Your task to perform on an android device: Open the calendar and show me this week's events? Image 0: 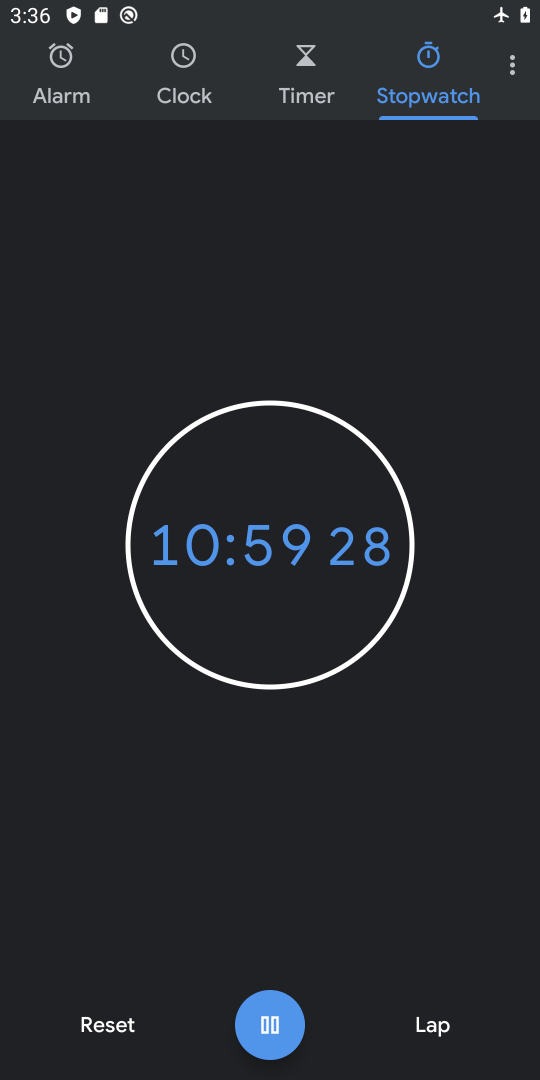
Step 0: press home button
Your task to perform on an android device: Open the calendar and show me this week's events? Image 1: 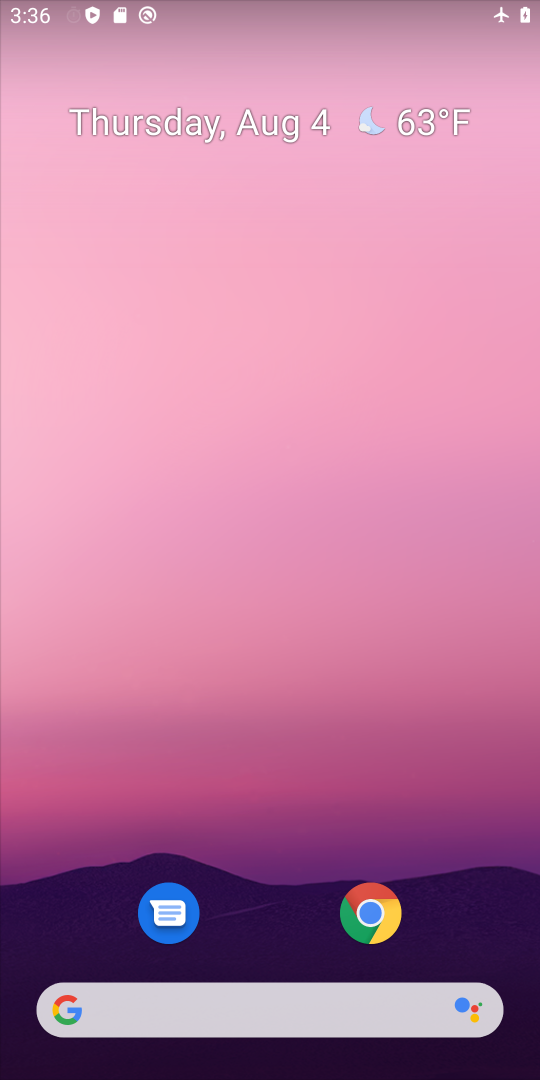
Step 1: drag from (265, 932) to (334, 42)
Your task to perform on an android device: Open the calendar and show me this week's events? Image 2: 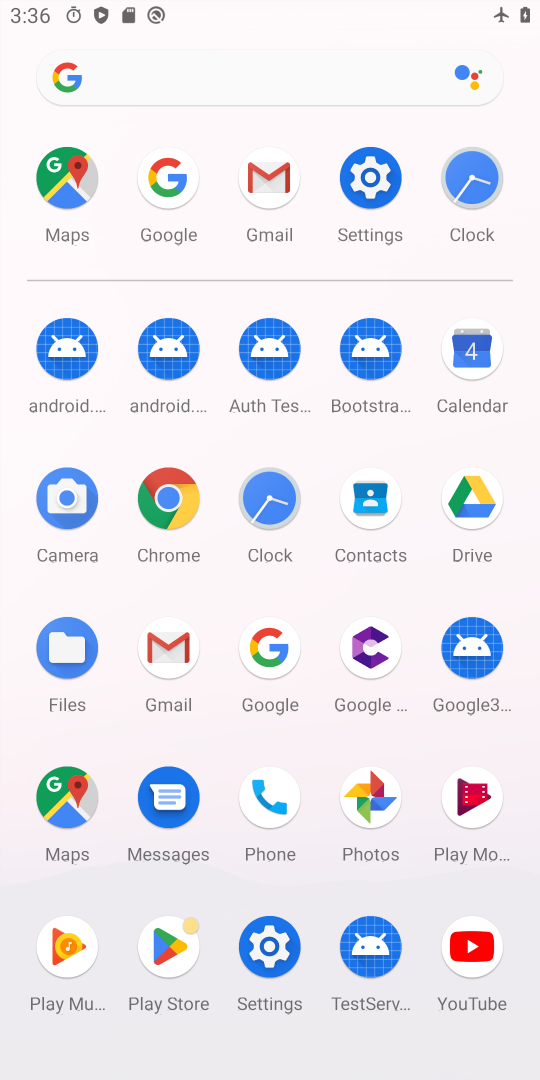
Step 2: click (492, 364)
Your task to perform on an android device: Open the calendar and show me this week's events? Image 3: 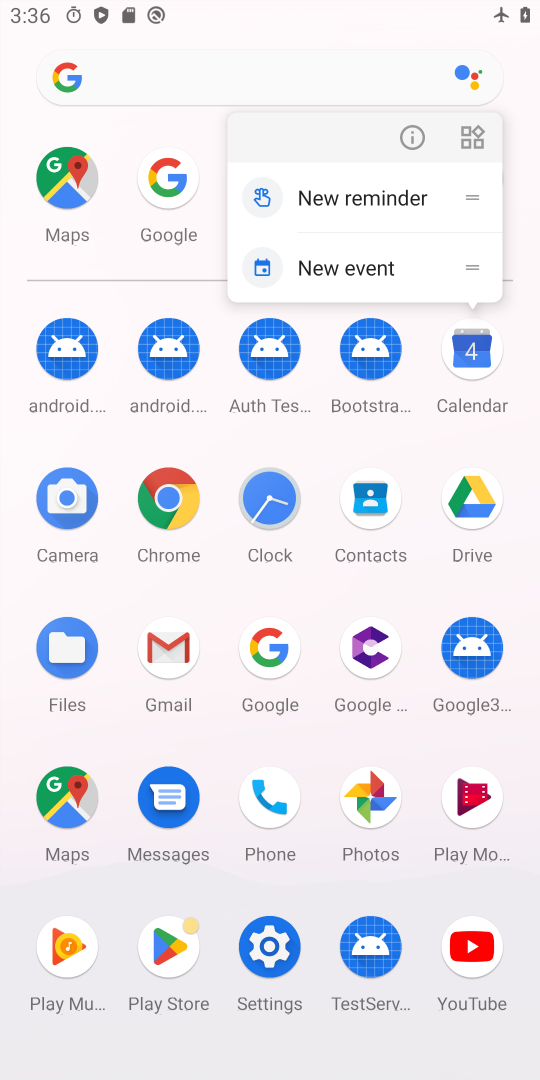
Step 3: click (476, 347)
Your task to perform on an android device: Open the calendar and show me this week's events? Image 4: 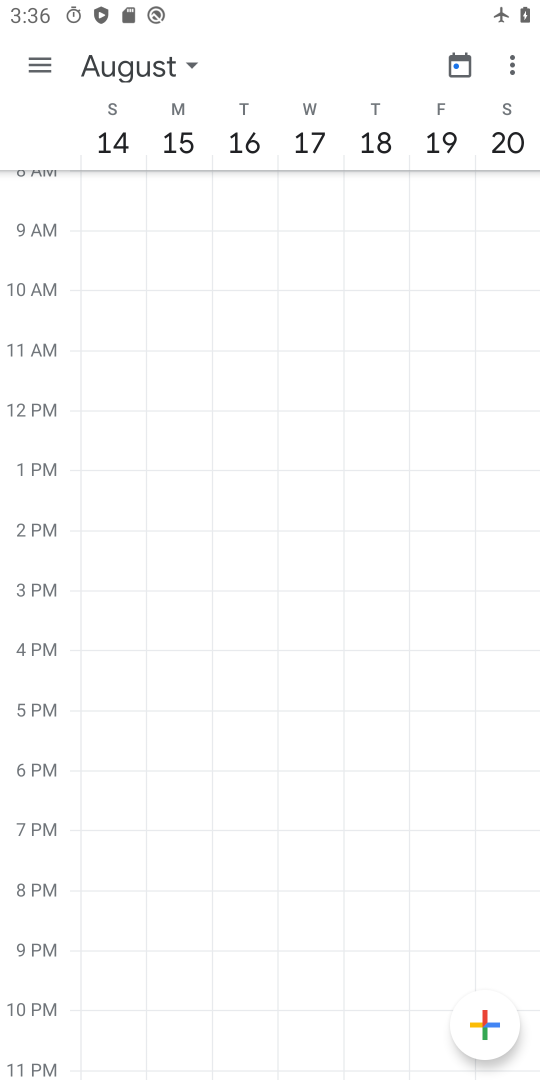
Step 4: click (190, 63)
Your task to perform on an android device: Open the calendar and show me this week's events? Image 5: 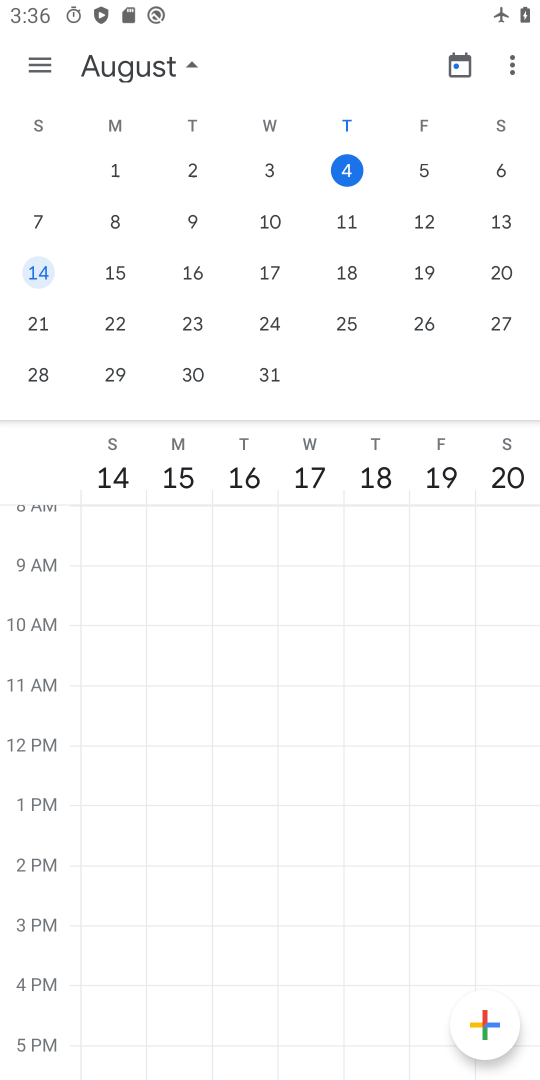
Step 5: click (344, 162)
Your task to perform on an android device: Open the calendar and show me this week's events? Image 6: 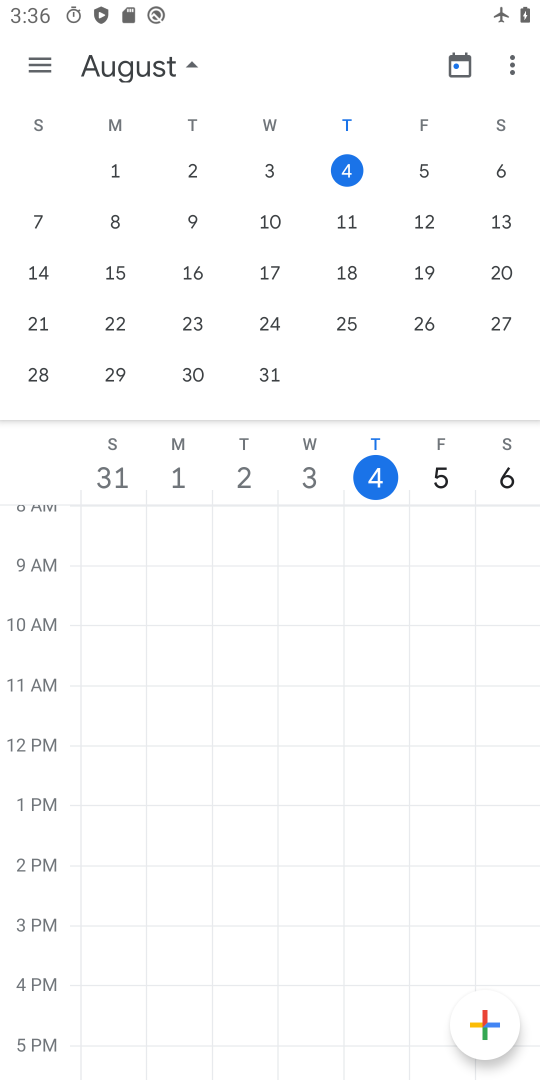
Step 6: task complete